Your task to perform on an android device: What's the weather today? Image 0: 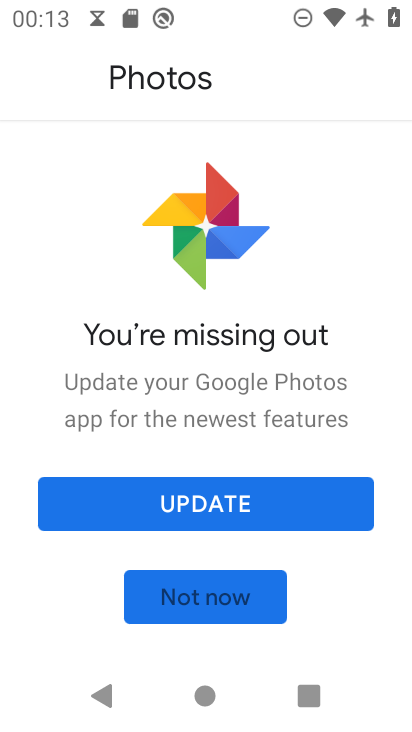
Step 0: press back button
Your task to perform on an android device: What's the weather today? Image 1: 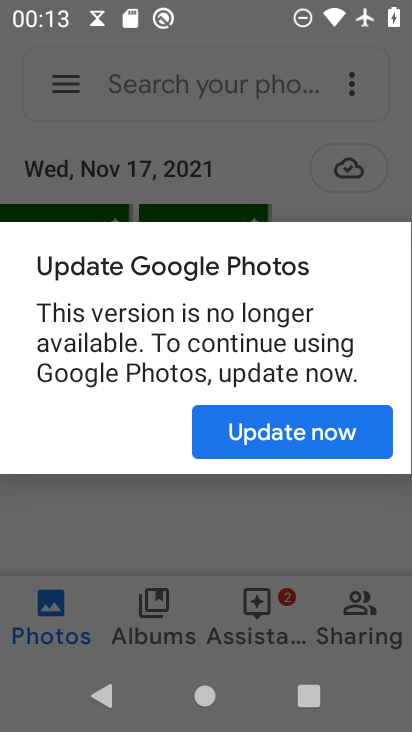
Step 1: press home button
Your task to perform on an android device: What's the weather today? Image 2: 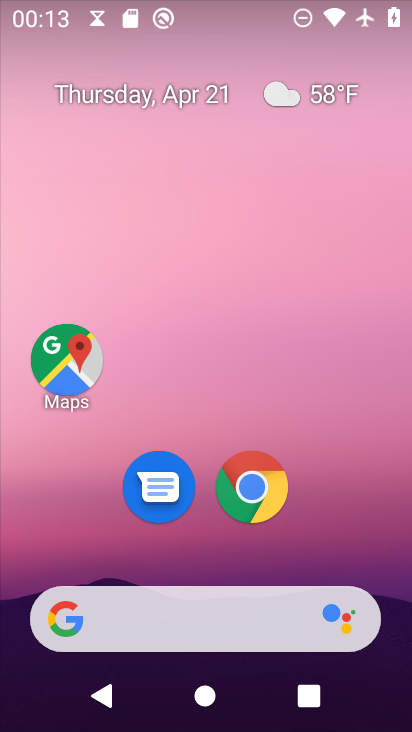
Step 2: click (160, 623)
Your task to perform on an android device: What's the weather today? Image 3: 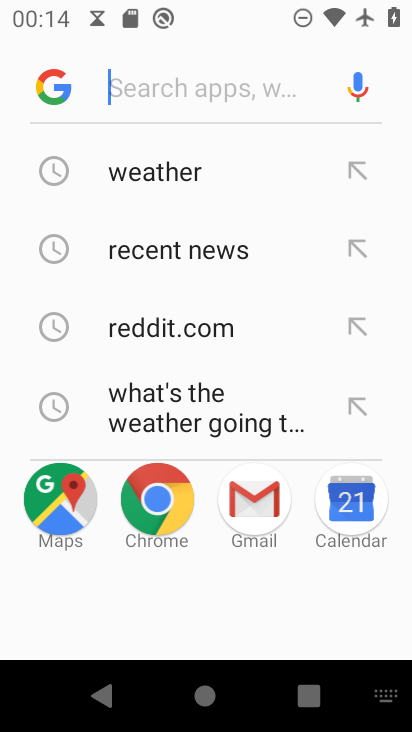
Step 3: click (192, 177)
Your task to perform on an android device: What's the weather today? Image 4: 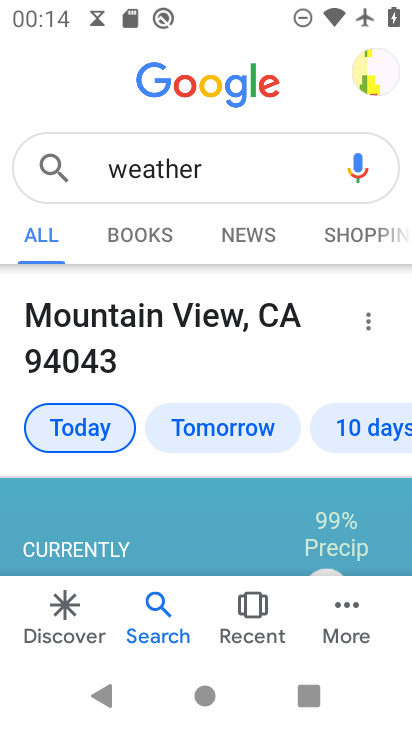
Step 4: drag from (227, 541) to (214, 258)
Your task to perform on an android device: What's the weather today? Image 5: 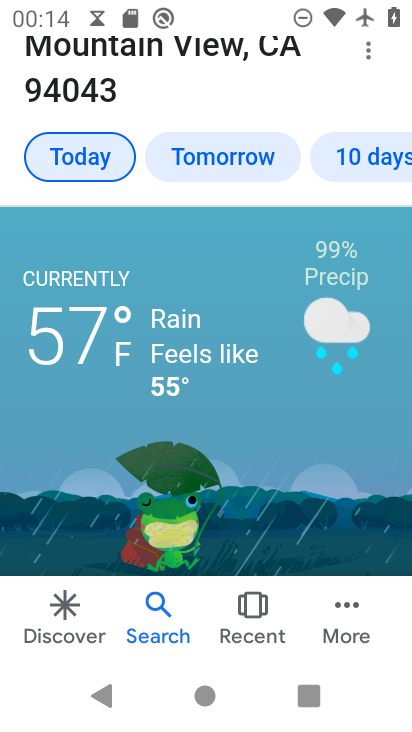
Step 5: click (72, 617)
Your task to perform on an android device: What's the weather today? Image 6: 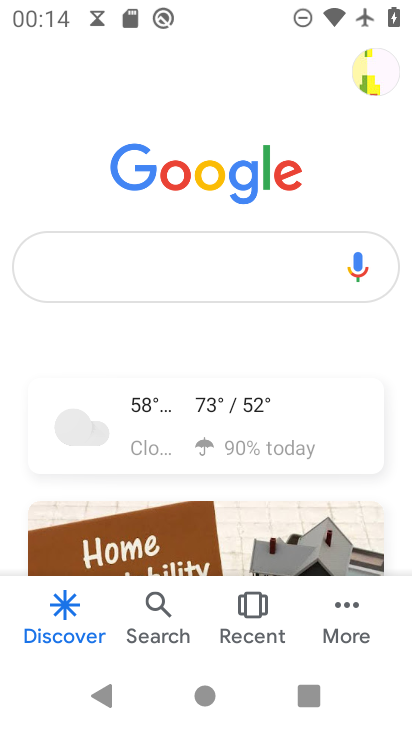
Step 6: drag from (244, 488) to (224, 170)
Your task to perform on an android device: What's the weather today? Image 7: 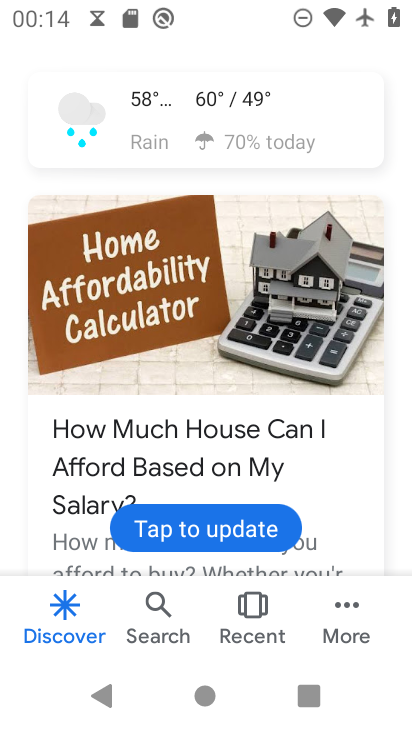
Step 7: drag from (260, 428) to (246, 209)
Your task to perform on an android device: What's the weather today? Image 8: 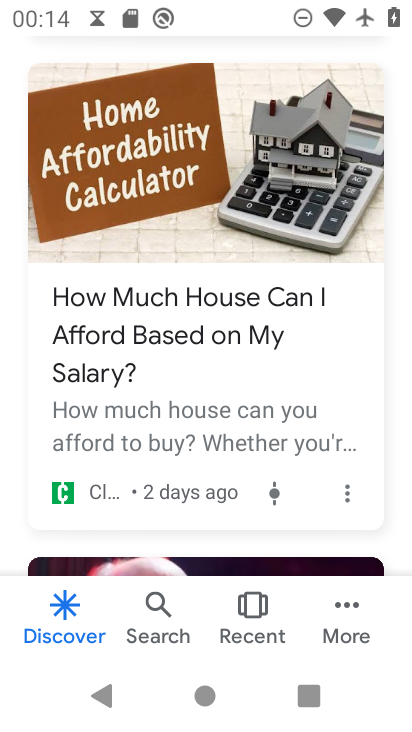
Step 8: drag from (242, 245) to (246, 491)
Your task to perform on an android device: What's the weather today? Image 9: 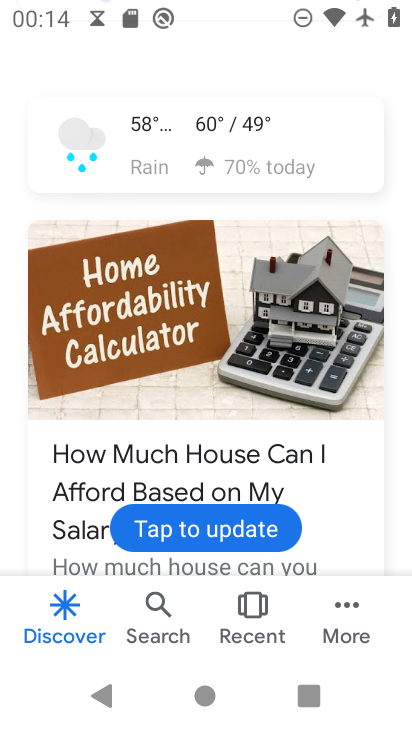
Step 9: drag from (237, 72) to (258, 440)
Your task to perform on an android device: What's the weather today? Image 10: 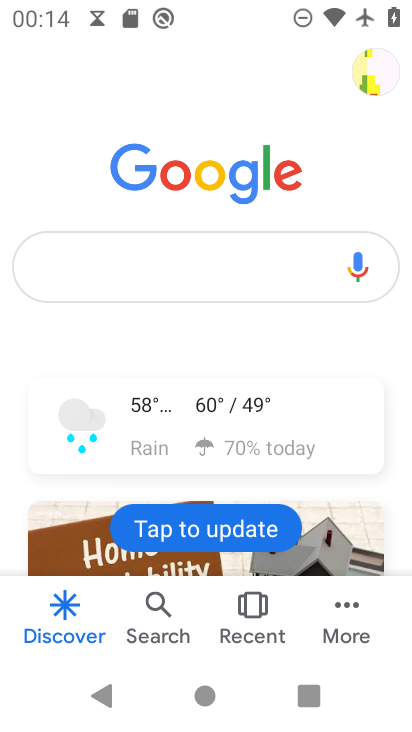
Step 10: click (260, 604)
Your task to perform on an android device: What's the weather today? Image 11: 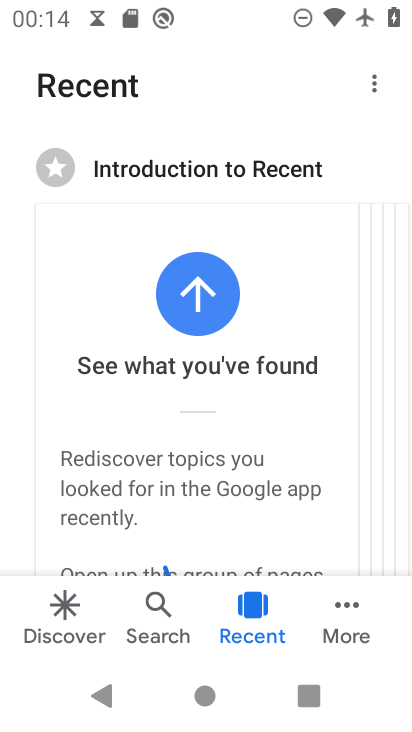
Step 11: click (45, 618)
Your task to perform on an android device: What's the weather today? Image 12: 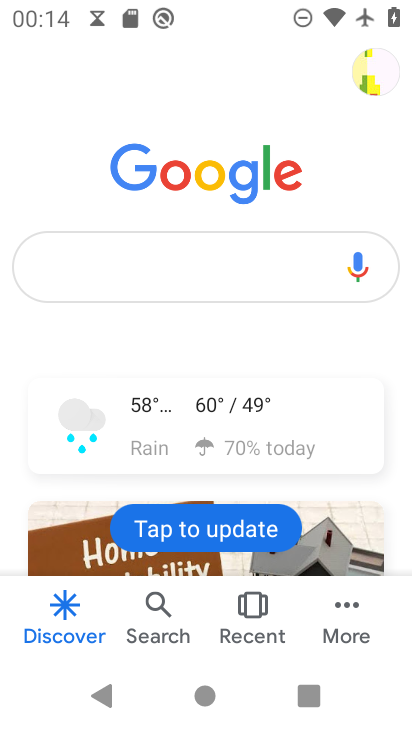
Step 12: task complete